Your task to perform on an android device: Open Chrome and go to the settings page Image 0: 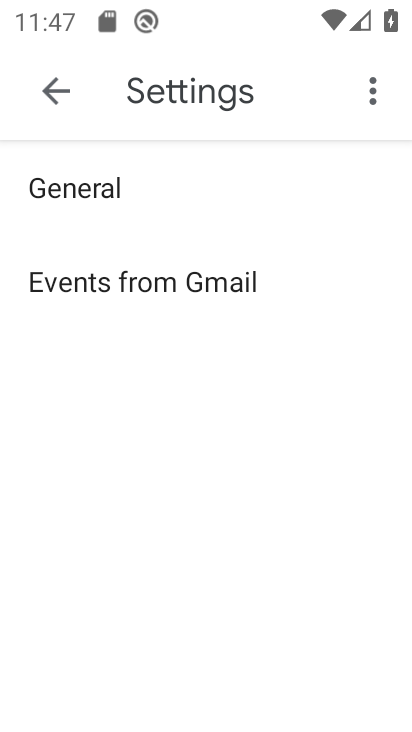
Step 0: press home button
Your task to perform on an android device: Open Chrome and go to the settings page Image 1: 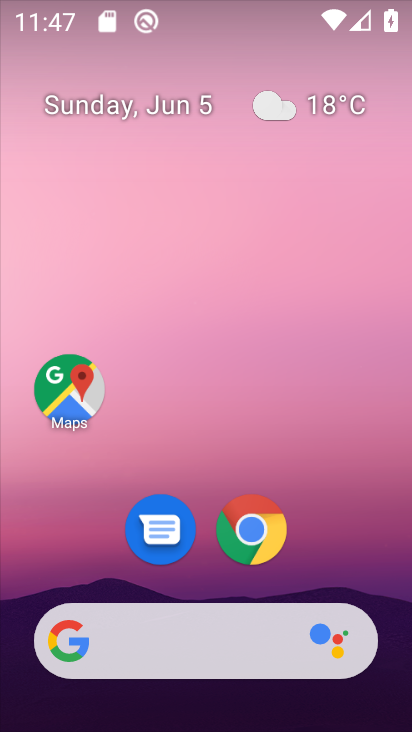
Step 1: click (237, 532)
Your task to perform on an android device: Open Chrome and go to the settings page Image 2: 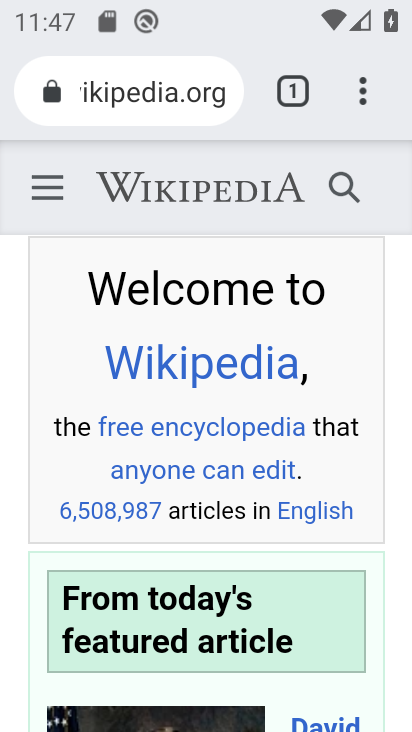
Step 2: click (370, 85)
Your task to perform on an android device: Open Chrome and go to the settings page Image 3: 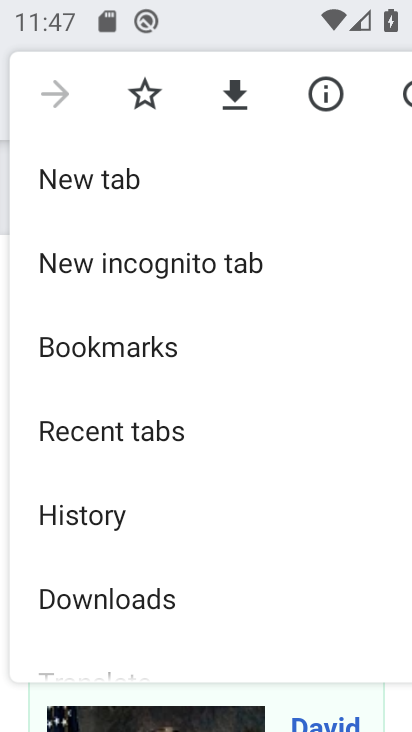
Step 3: drag from (208, 570) to (173, 215)
Your task to perform on an android device: Open Chrome and go to the settings page Image 4: 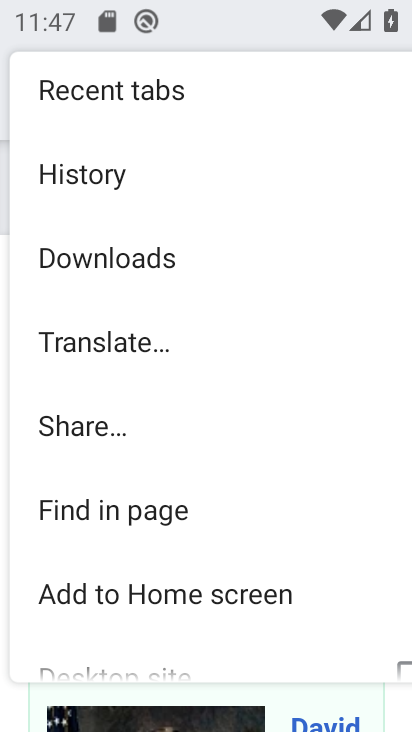
Step 4: drag from (108, 612) to (108, 318)
Your task to perform on an android device: Open Chrome and go to the settings page Image 5: 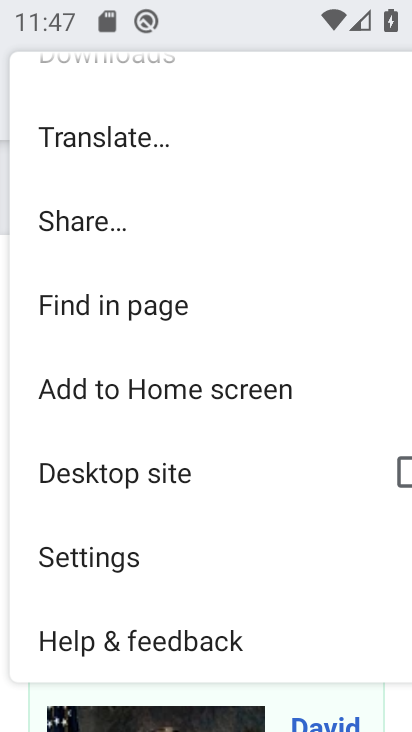
Step 5: click (122, 568)
Your task to perform on an android device: Open Chrome and go to the settings page Image 6: 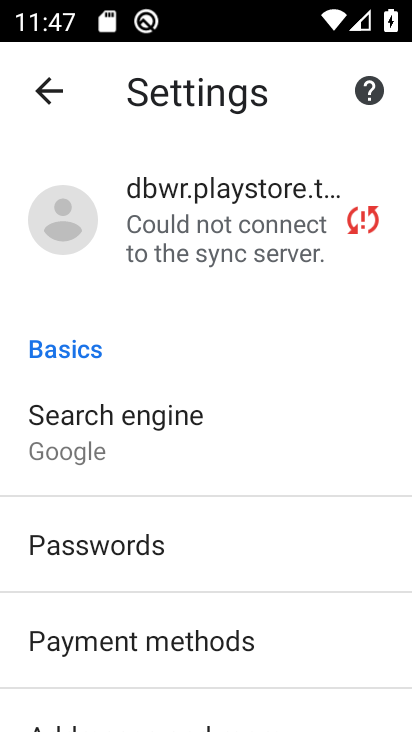
Step 6: task complete